Your task to perform on an android device: star an email in the gmail app Image 0: 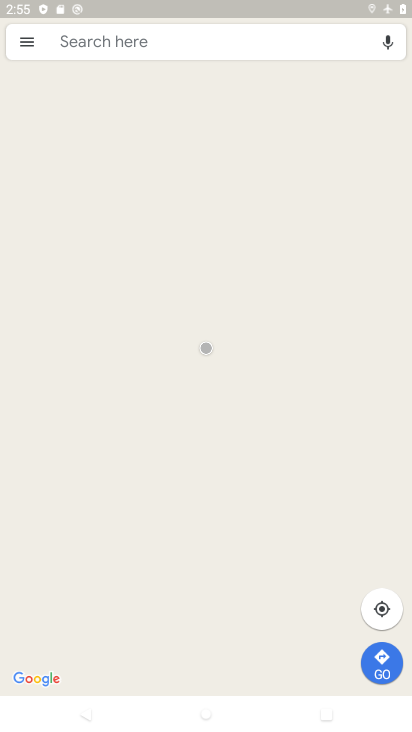
Step 0: drag from (318, 596) to (266, 40)
Your task to perform on an android device: star an email in the gmail app Image 1: 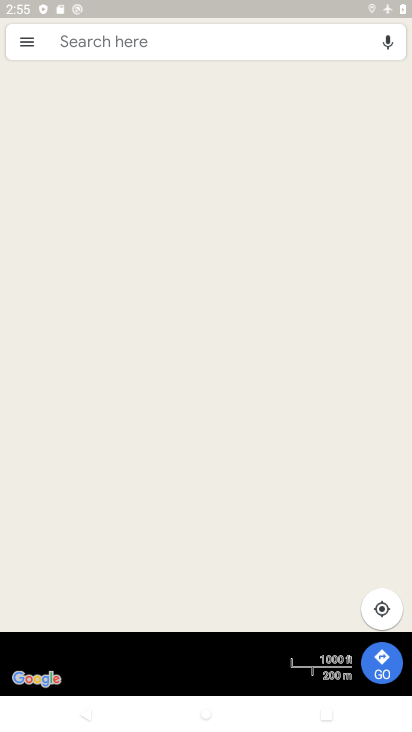
Step 1: press home button
Your task to perform on an android device: star an email in the gmail app Image 2: 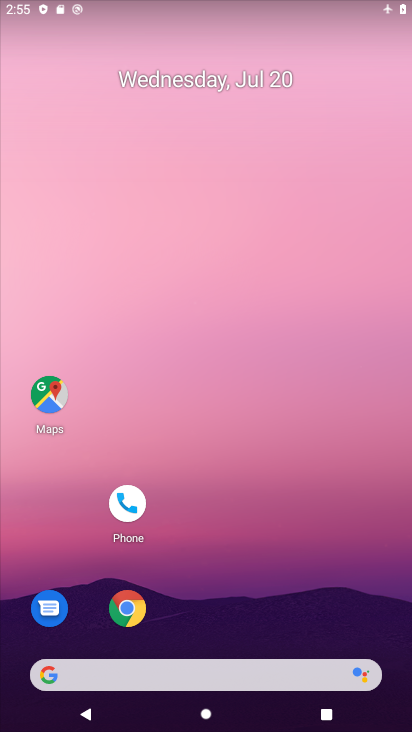
Step 2: drag from (291, 617) to (233, 172)
Your task to perform on an android device: star an email in the gmail app Image 3: 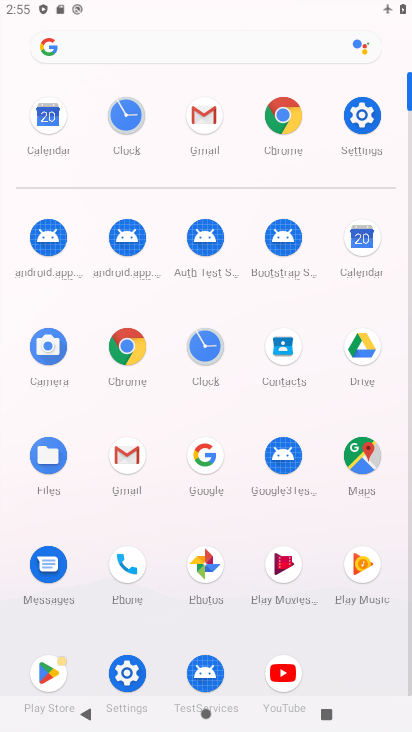
Step 3: click (210, 126)
Your task to perform on an android device: star an email in the gmail app Image 4: 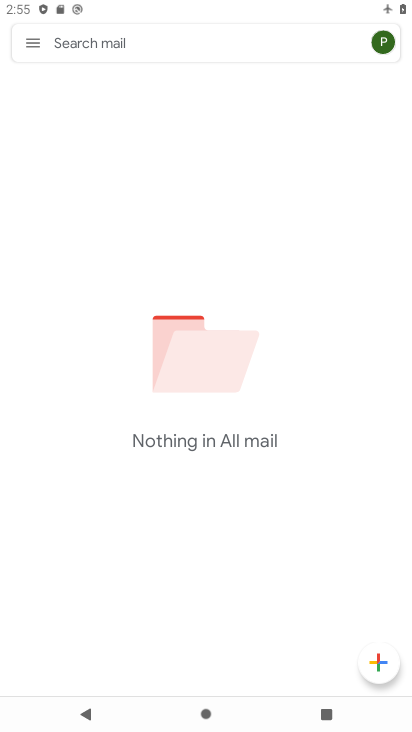
Step 4: task complete